Your task to perform on an android device: Go to calendar. Show me events next week Image 0: 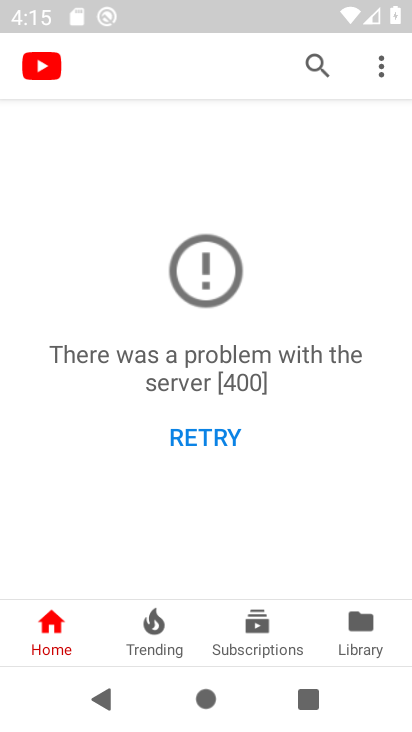
Step 0: press home button
Your task to perform on an android device: Go to calendar. Show me events next week Image 1: 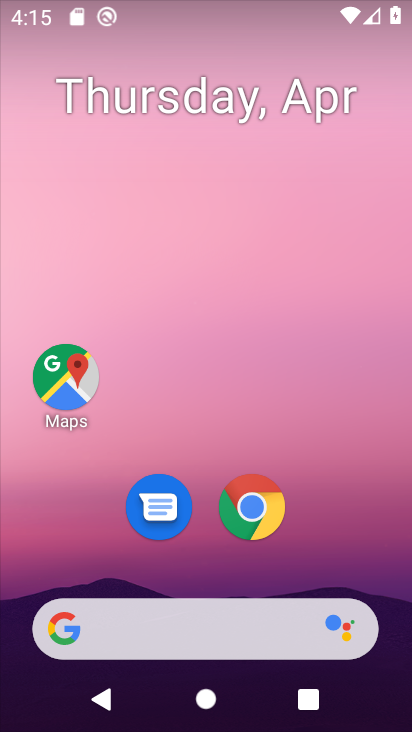
Step 1: drag from (323, 445) to (352, 77)
Your task to perform on an android device: Go to calendar. Show me events next week Image 2: 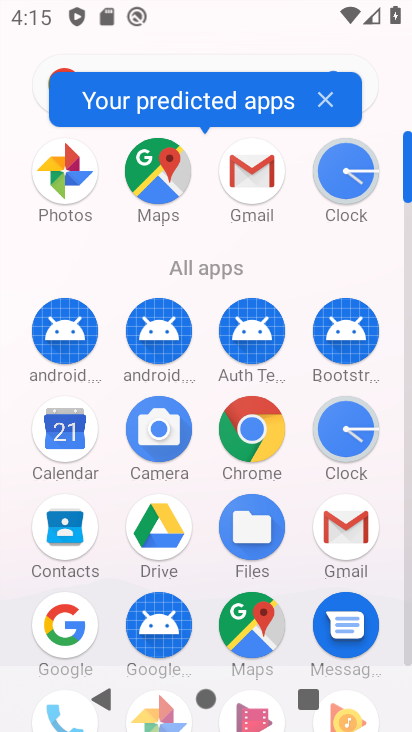
Step 2: click (57, 433)
Your task to perform on an android device: Go to calendar. Show me events next week Image 3: 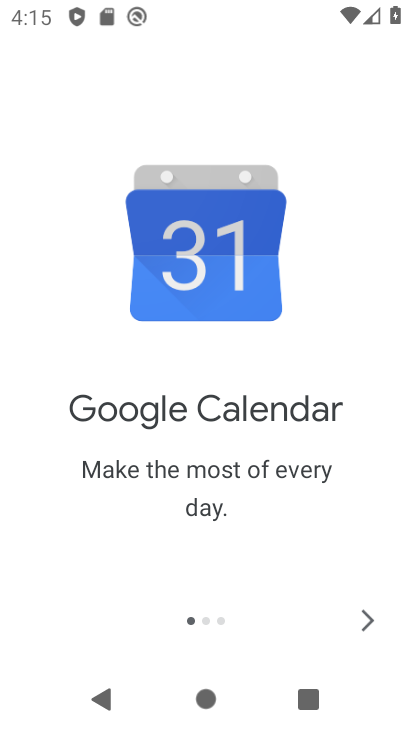
Step 3: click (380, 632)
Your task to perform on an android device: Go to calendar. Show me events next week Image 4: 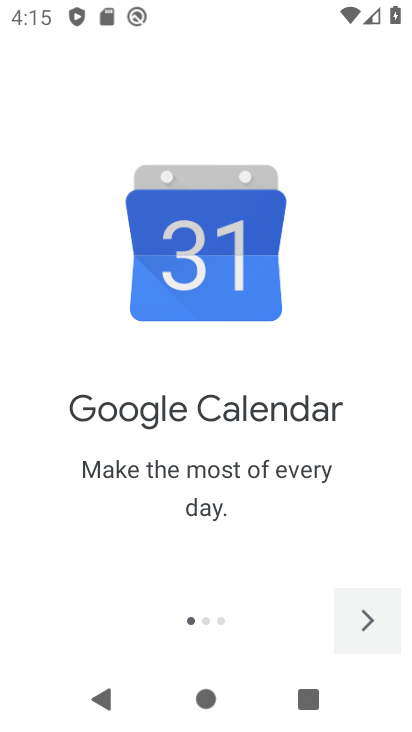
Step 4: click (376, 625)
Your task to perform on an android device: Go to calendar. Show me events next week Image 5: 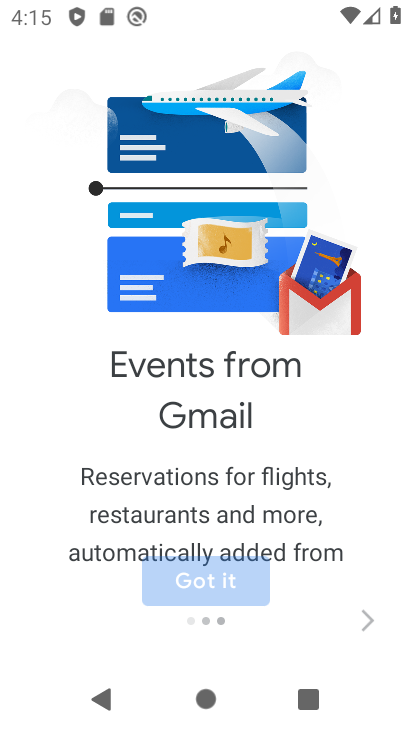
Step 5: click (376, 625)
Your task to perform on an android device: Go to calendar. Show me events next week Image 6: 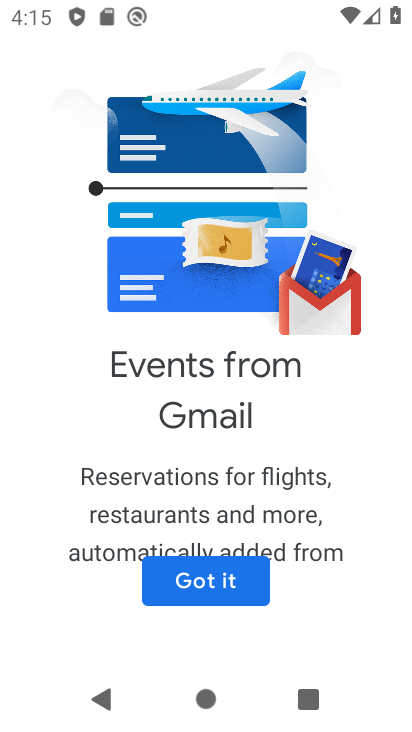
Step 6: click (237, 591)
Your task to perform on an android device: Go to calendar. Show me events next week Image 7: 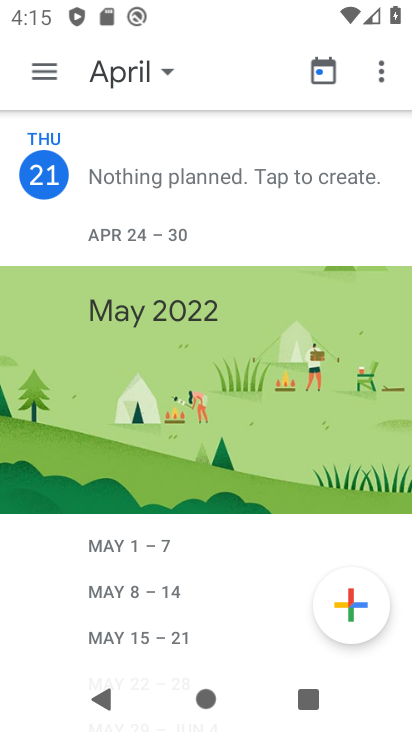
Step 7: click (132, 96)
Your task to perform on an android device: Go to calendar. Show me events next week Image 8: 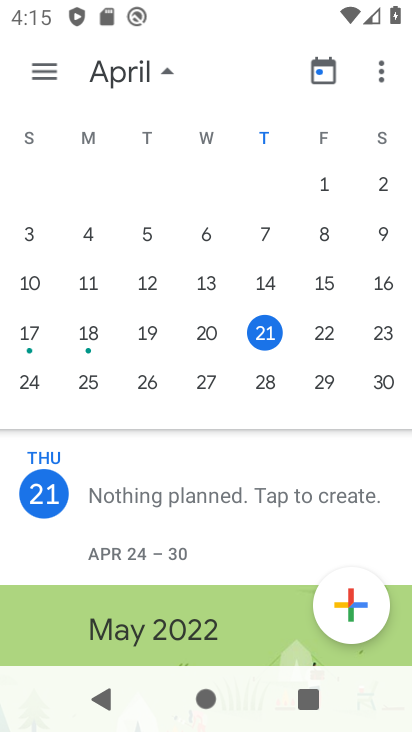
Step 8: click (267, 388)
Your task to perform on an android device: Go to calendar. Show me events next week Image 9: 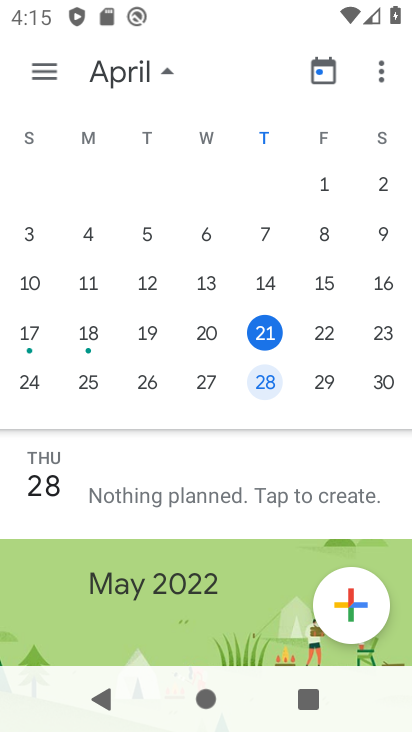
Step 9: task complete